Your task to perform on an android device: toggle notifications settings in the gmail app Image 0: 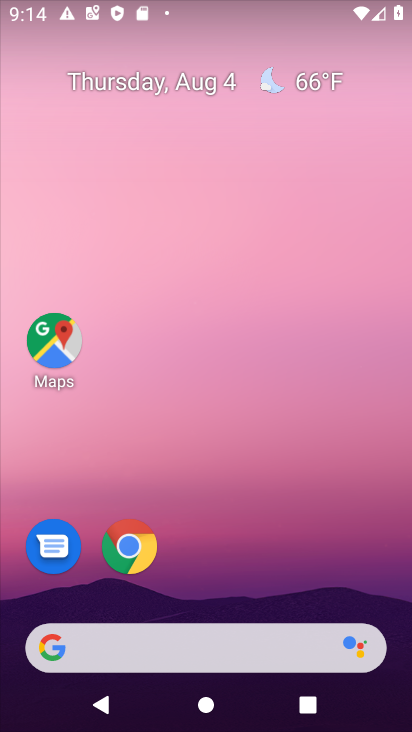
Step 0: drag from (273, 610) to (296, 254)
Your task to perform on an android device: toggle notifications settings in the gmail app Image 1: 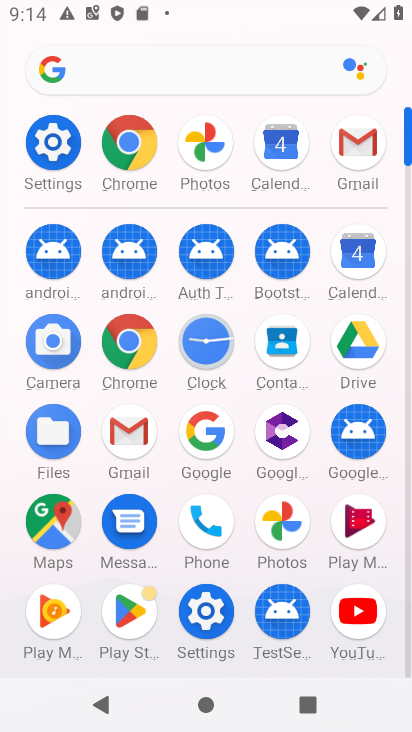
Step 1: click (358, 157)
Your task to perform on an android device: toggle notifications settings in the gmail app Image 2: 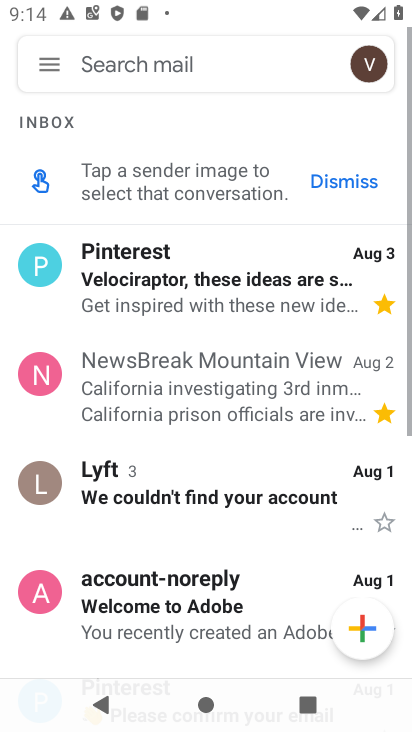
Step 2: click (37, 76)
Your task to perform on an android device: toggle notifications settings in the gmail app Image 3: 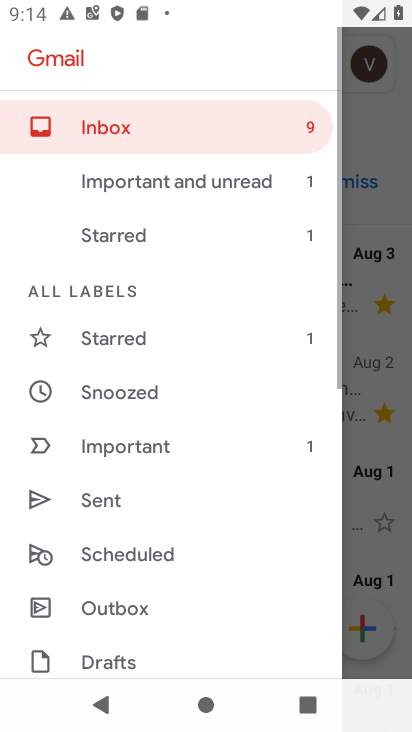
Step 3: drag from (226, 593) to (268, 78)
Your task to perform on an android device: toggle notifications settings in the gmail app Image 4: 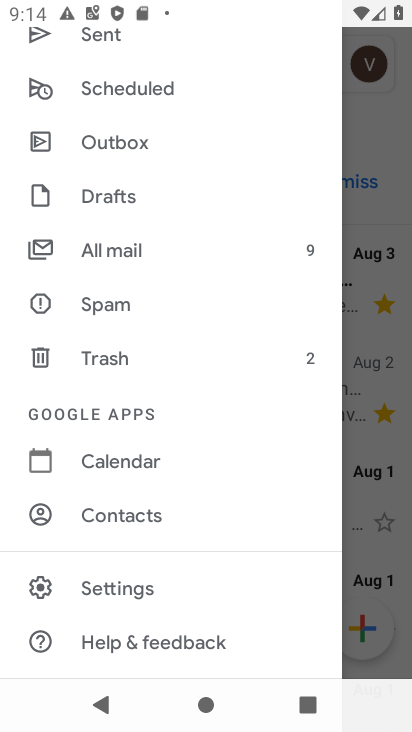
Step 4: click (112, 586)
Your task to perform on an android device: toggle notifications settings in the gmail app Image 5: 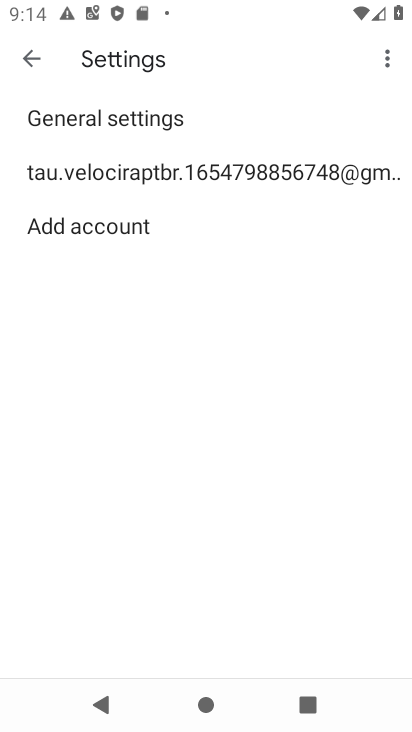
Step 5: click (170, 176)
Your task to perform on an android device: toggle notifications settings in the gmail app Image 6: 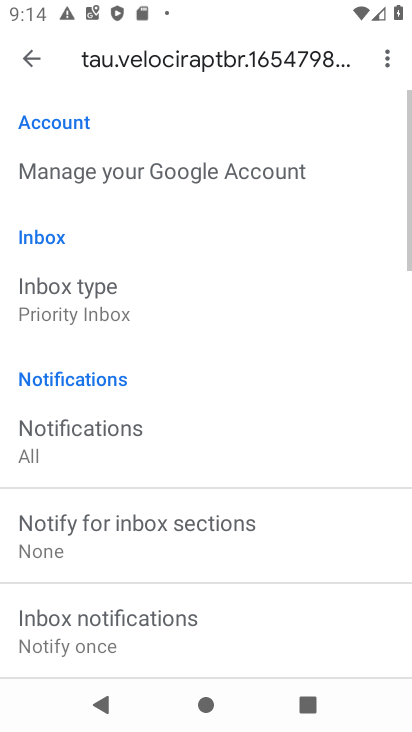
Step 6: drag from (252, 628) to (259, 250)
Your task to perform on an android device: toggle notifications settings in the gmail app Image 7: 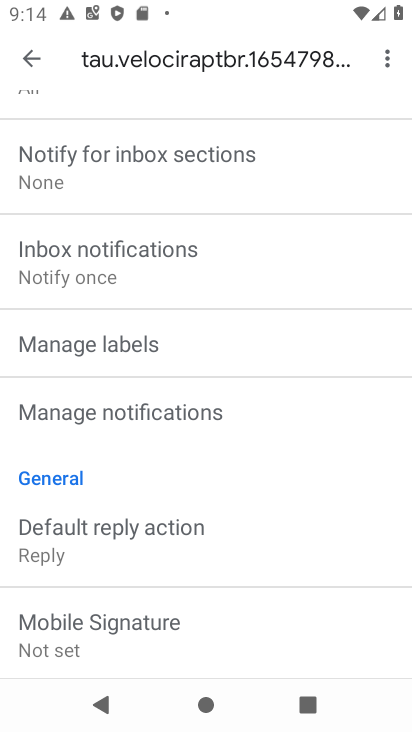
Step 7: click (102, 417)
Your task to perform on an android device: toggle notifications settings in the gmail app Image 8: 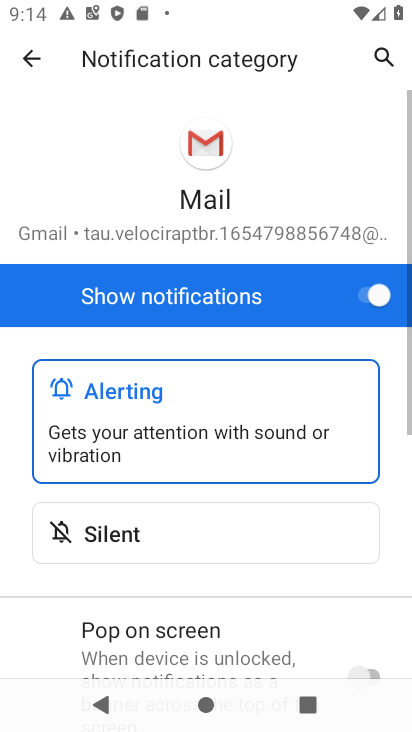
Step 8: click (383, 296)
Your task to perform on an android device: toggle notifications settings in the gmail app Image 9: 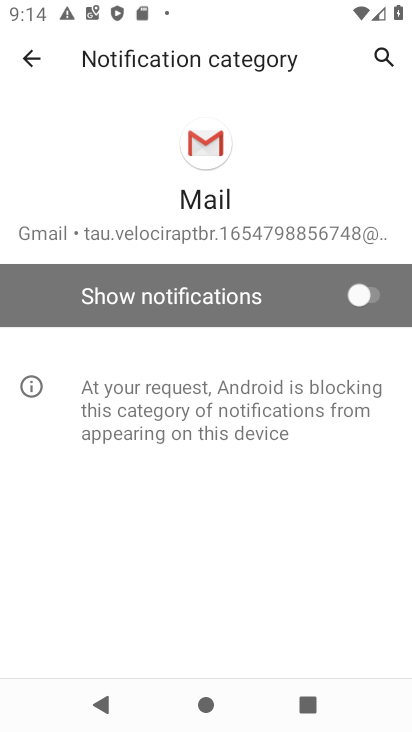
Step 9: task complete